Your task to perform on an android device: turn off airplane mode Image 0: 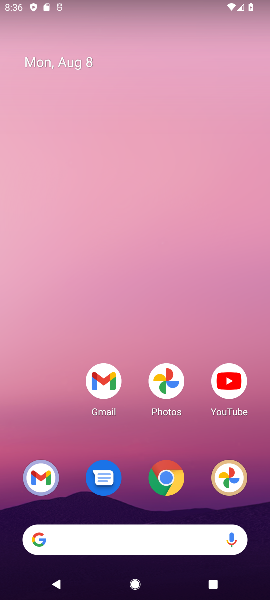
Step 0: press home button
Your task to perform on an android device: turn off airplane mode Image 1: 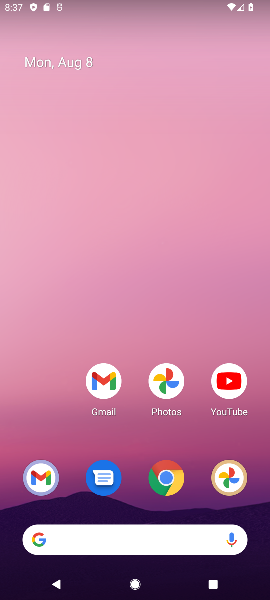
Step 1: drag from (127, 537) to (225, 122)
Your task to perform on an android device: turn off airplane mode Image 2: 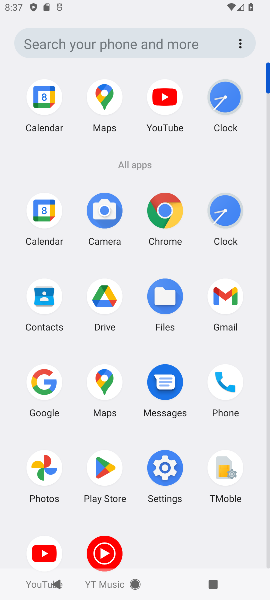
Step 2: click (170, 469)
Your task to perform on an android device: turn off airplane mode Image 3: 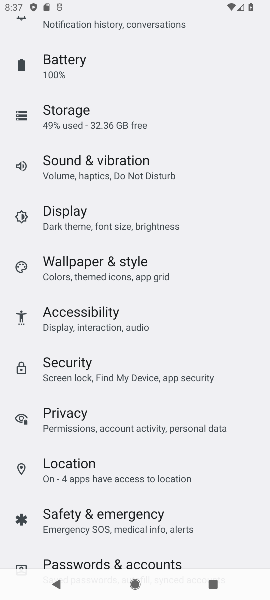
Step 3: drag from (158, 77) to (136, 521)
Your task to perform on an android device: turn off airplane mode Image 4: 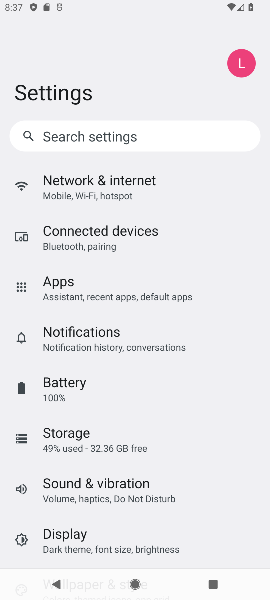
Step 4: click (127, 191)
Your task to perform on an android device: turn off airplane mode Image 5: 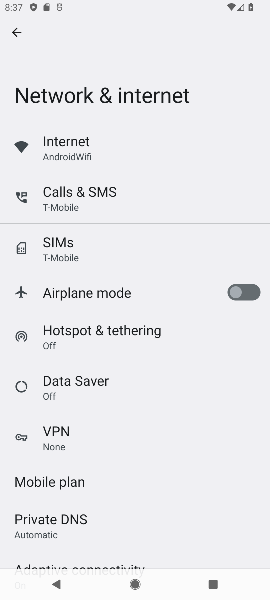
Step 5: task complete